Your task to perform on an android device: turn smart compose on in the gmail app Image 0: 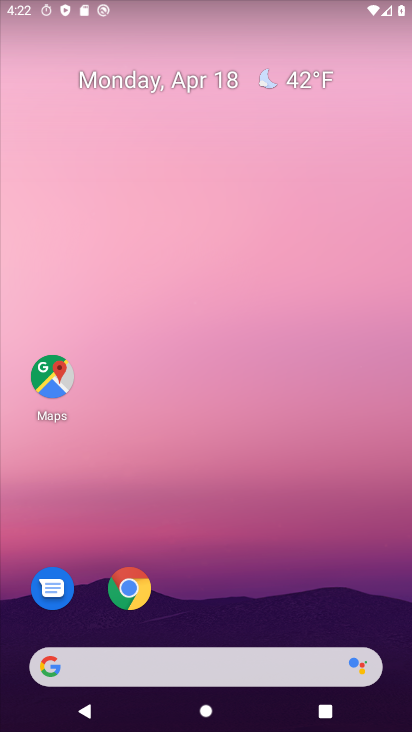
Step 0: drag from (206, 613) to (195, 2)
Your task to perform on an android device: turn smart compose on in the gmail app Image 1: 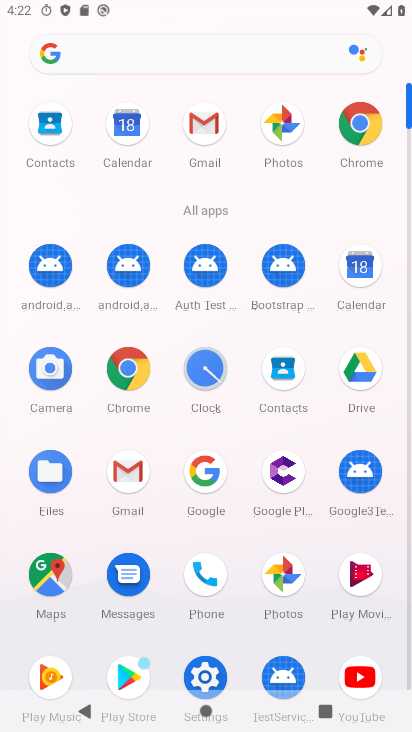
Step 1: click (202, 145)
Your task to perform on an android device: turn smart compose on in the gmail app Image 2: 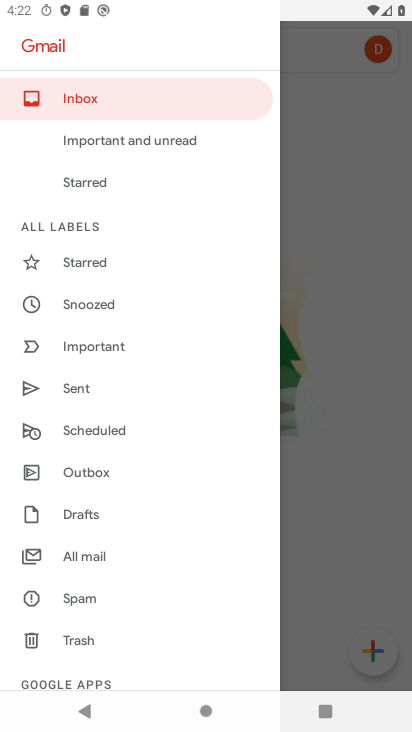
Step 2: drag from (44, 661) to (80, 113)
Your task to perform on an android device: turn smart compose on in the gmail app Image 3: 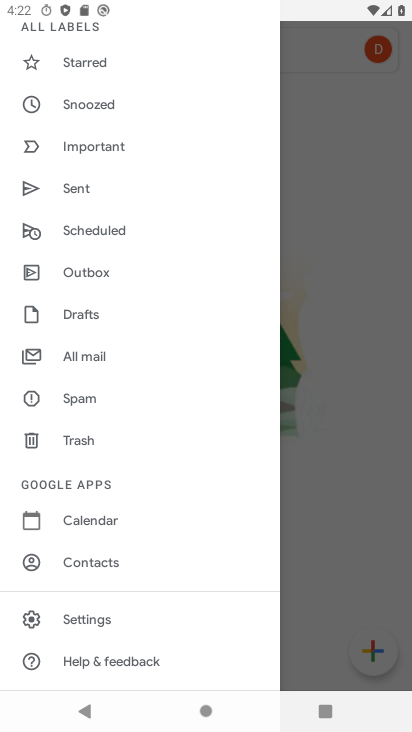
Step 3: click (96, 630)
Your task to perform on an android device: turn smart compose on in the gmail app Image 4: 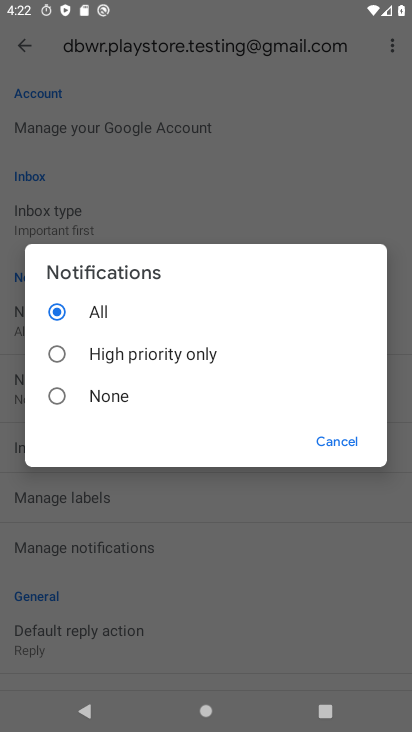
Step 4: click (334, 446)
Your task to perform on an android device: turn smart compose on in the gmail app Image 5: 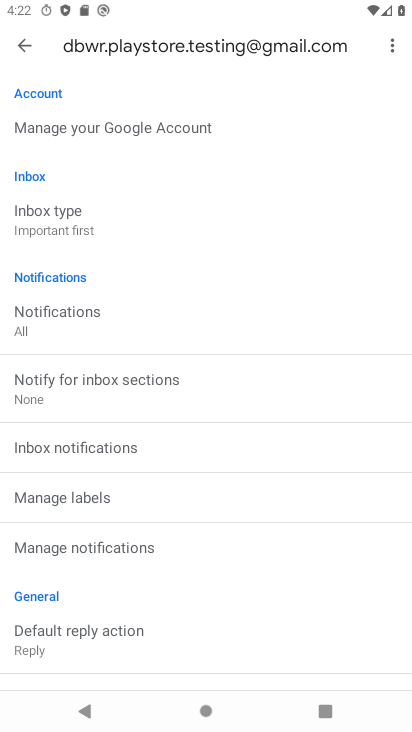
Step 5: task complete